Your task to perform on an android device: Go to ESPN.com Image 0: 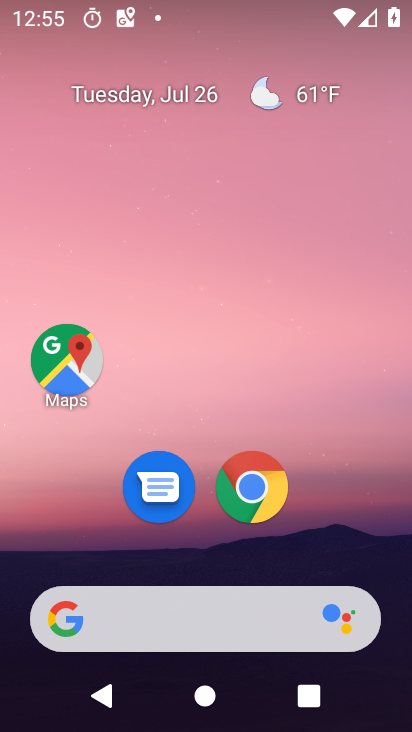
Step 0: click (256, 475)
Your task to perform on an android device: Go to ESPN.com Image 1: 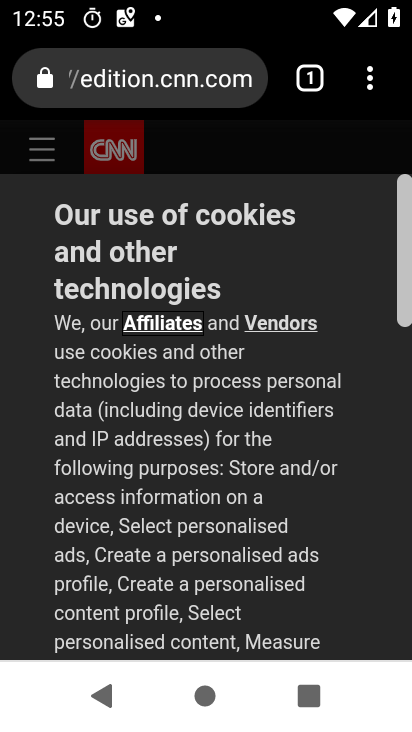
Step 1: click (323, 63)
Your task to perform on an android device: Go to ESPN.com Image 2: 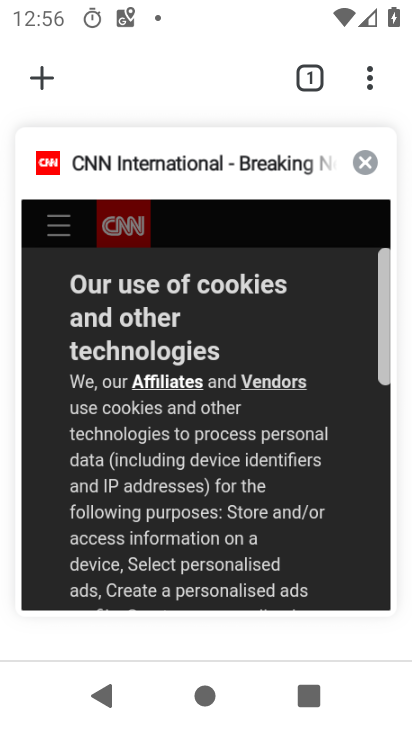
Step 2: click (50, 71)
Your task to perform on an android device: Go to ESPN.com Image 3: 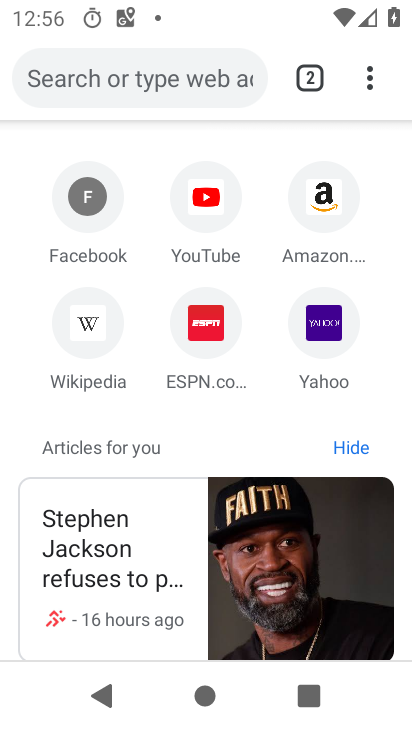
Step 3: click (211, 320)
Your task to perform on an android device: Go to ESPN.com Image 4: 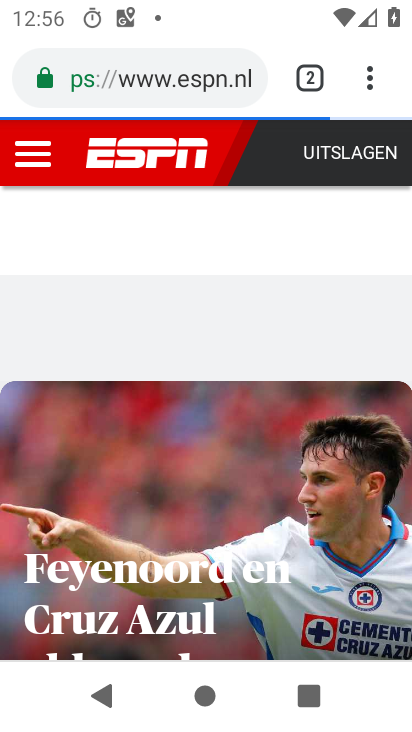
Step 4: task complete